Your task to perform on an android device: Open settings Image 0: 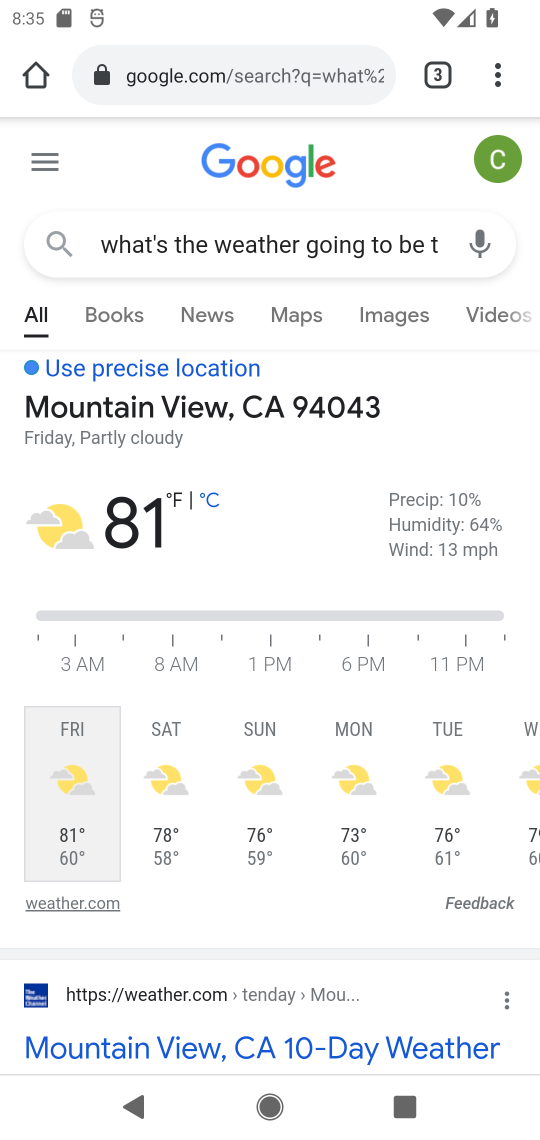
Step 0: press home button
Your task to perform on an android device: Open settings Image 1: 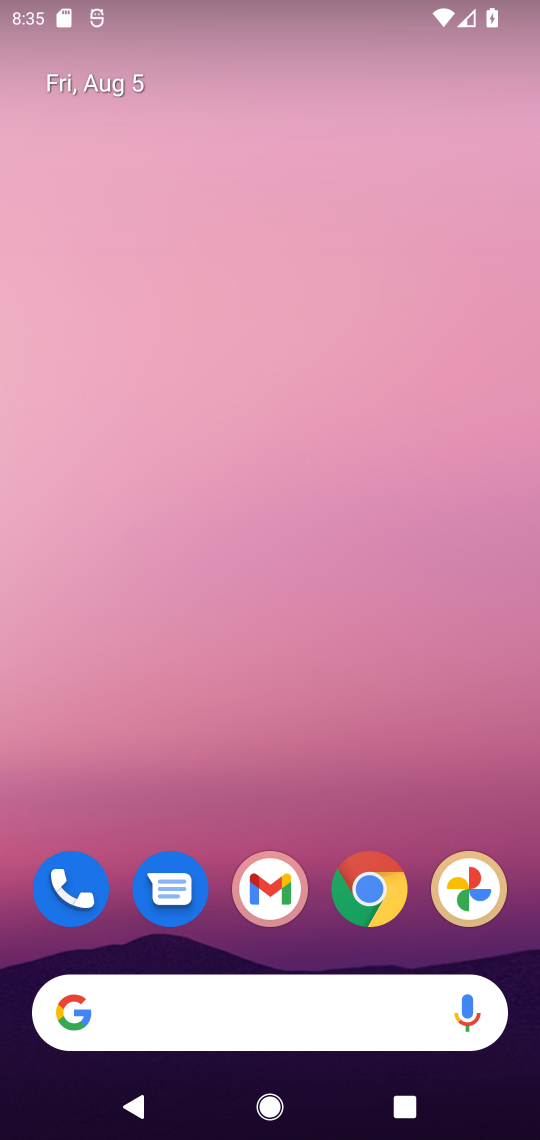
Step 1: drag from (269, 914) to (368, 245)
Your task to perform on an android device: Open settings Image 2: 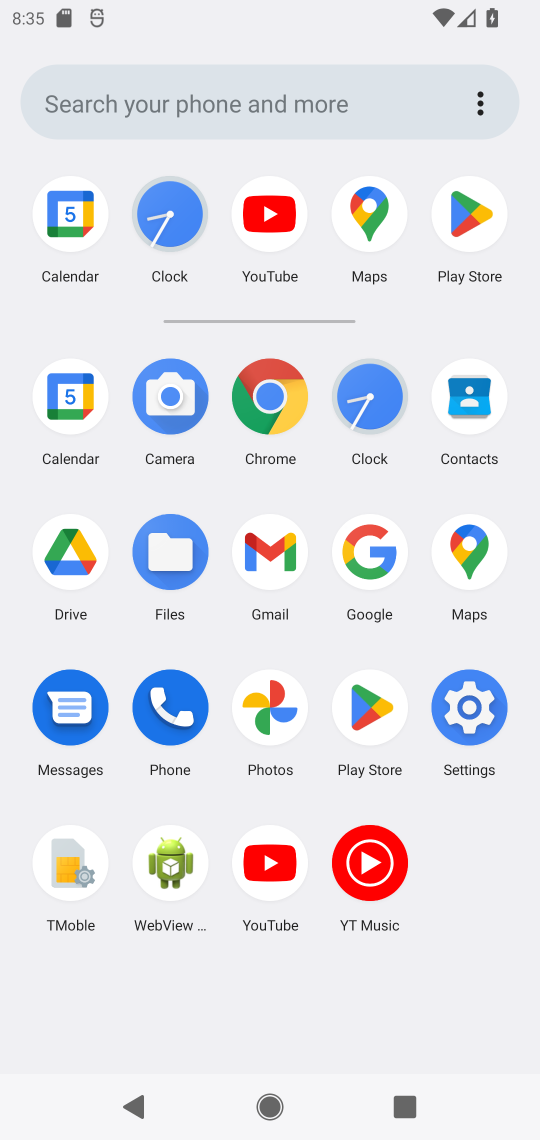
Step 2: click (456, 689)
Your task to perform on an android device: Open settings Image 3: 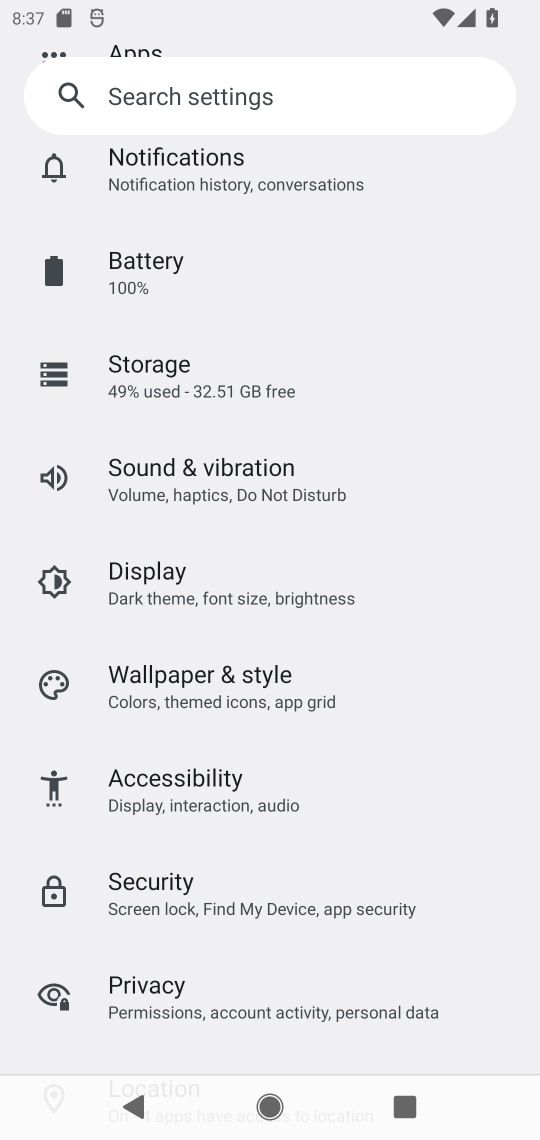
Step 3: task complete